Your task to perform on an android device: change the clock display to show seconds Image 0: 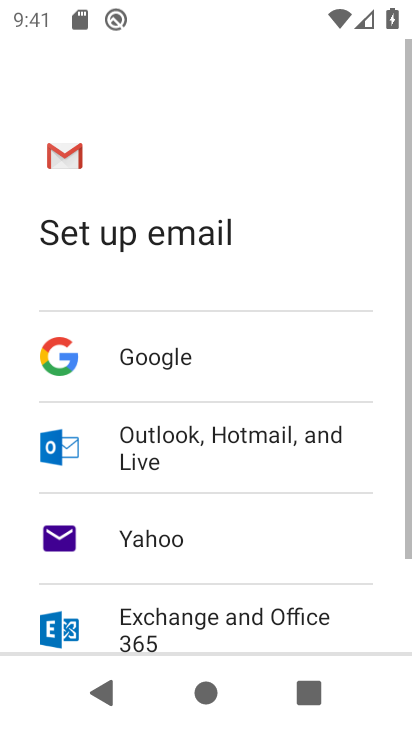
Step 0: press home button
Your task to perform on an android device: change the clock display to show seconds Image 1: 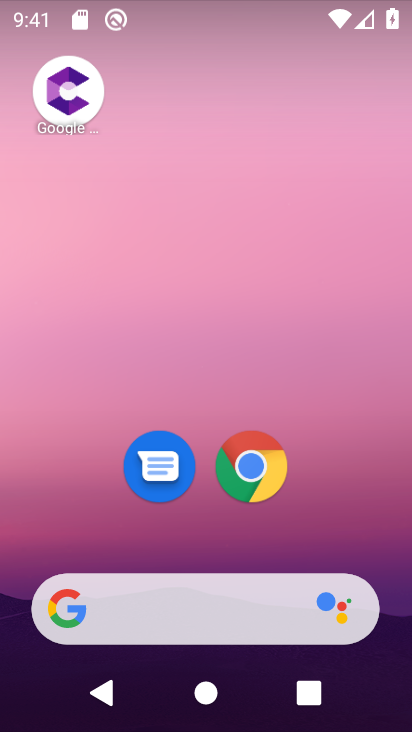
Step 1: drag from (277, 565) to (245, 203)
Your task to perform on an android device: change the clock display to show seconds Image 2: 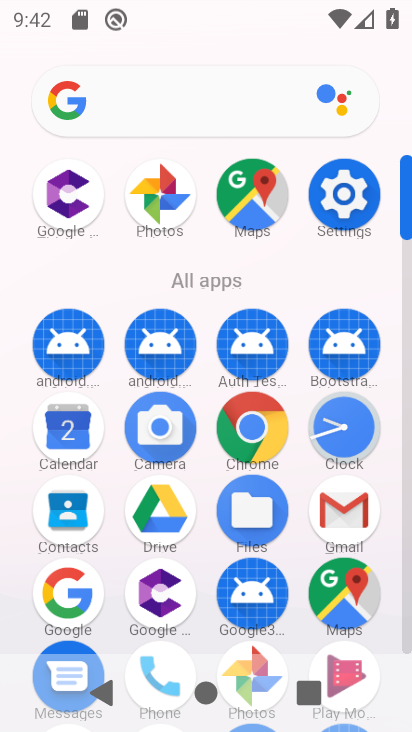
Step 2: click (314, 398)
Your task to perform on an android device: change the clock display to show seconds Image 3: 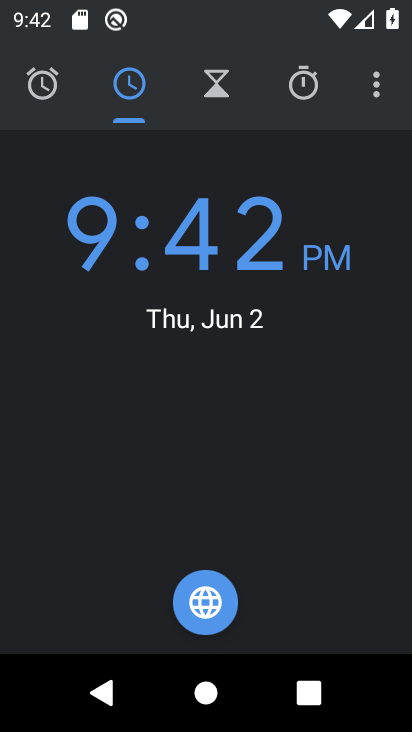
Step 3: click (378, 83)
Your task to perform on an android device: change the clock display to show seconds Image 4: 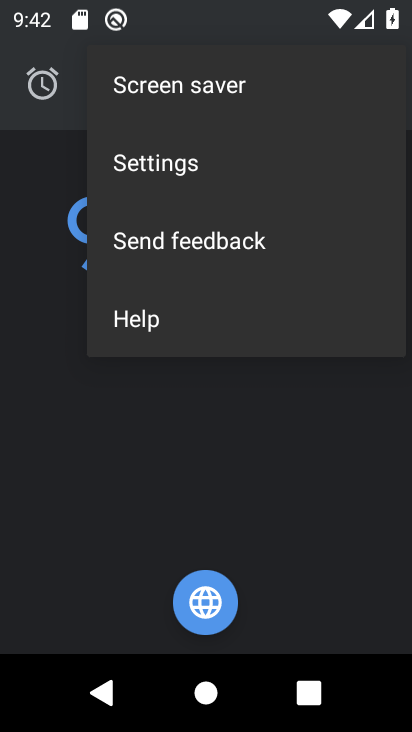
Step 4: click (174, 161)
Your task to perform on an android device: change the clock display to show seconds Image 5: 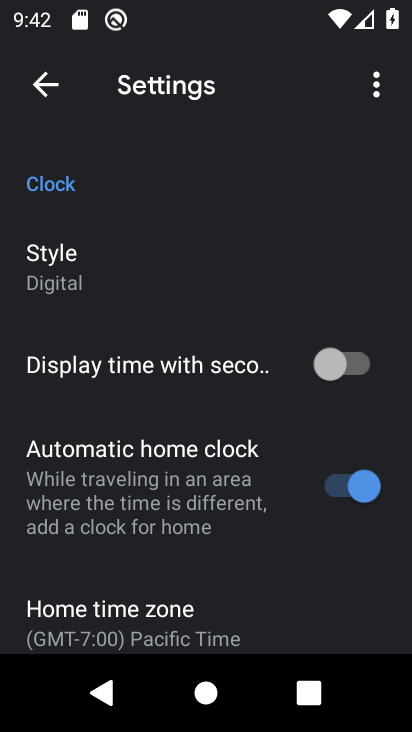
Step 5: click (361, 378)
Your task to perform on an android device: change the clock display to show seconds Image 6: 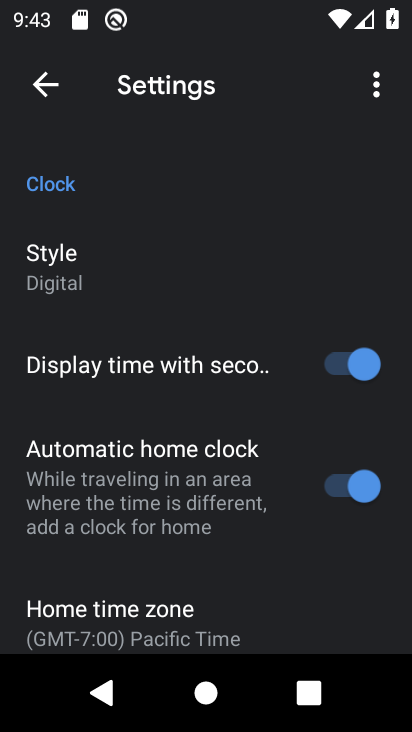
Step 6: task complete